Your task to perform on an android device: empty trash in google photos Image 0: 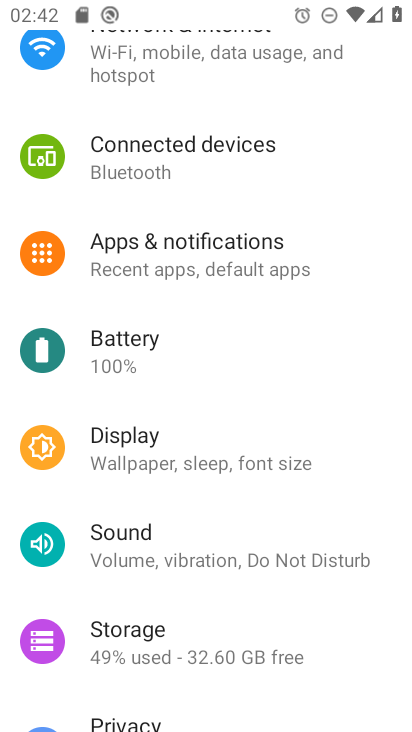
Step 0: press home button
Your task to perform on an android device: empty trash in google photos Image 1: 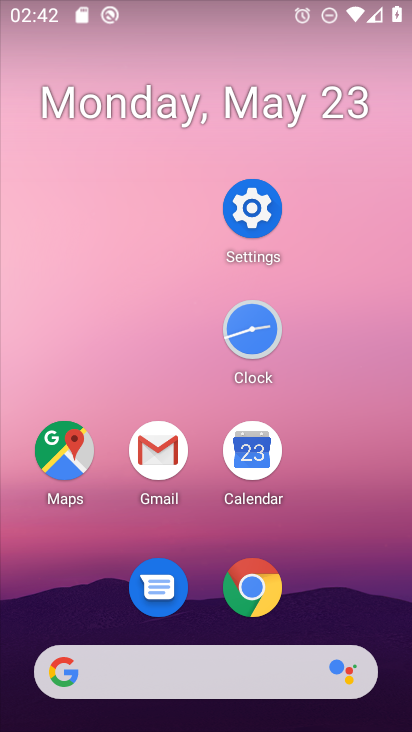
Step 1: drag from (370, 548) to (337, 158)
Your task to perform on an android device: empty trash in google photos Image 2: 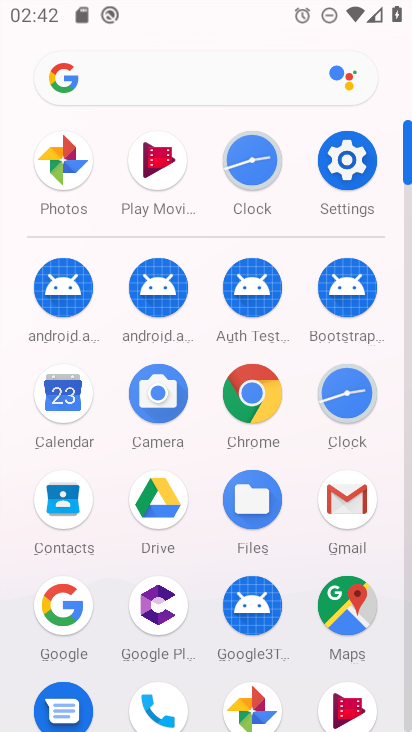
Step 2: click (59, 216)
Your task to perform on an android device: empty trash in google photos Image 3: 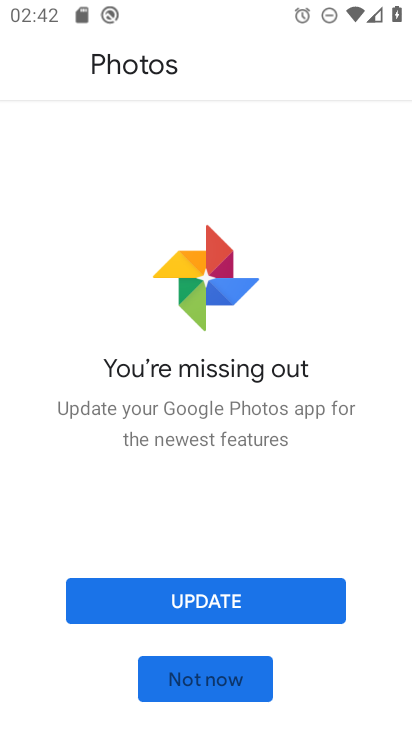
Step 3: click (270, 614)
Your task to perform on an android device: empty trash in google photos Image 4: 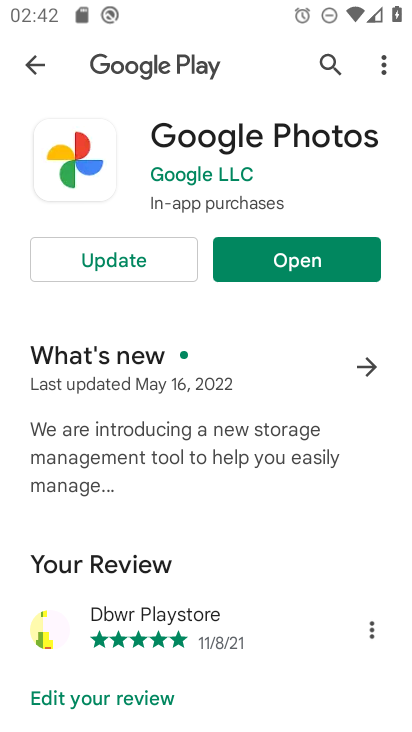
Step 4: click (118, 249)
Your task to perform on an android device: empty trash in google photos Image 5: 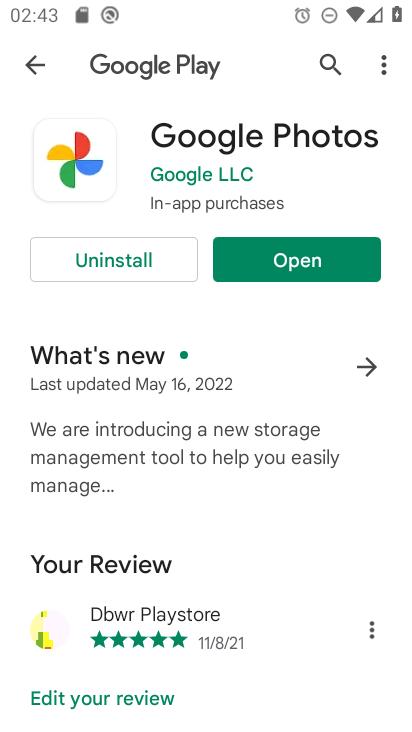
Step 5: click (292, 270)
Your task to perform on an android device: empty trash in google photos Image 6: 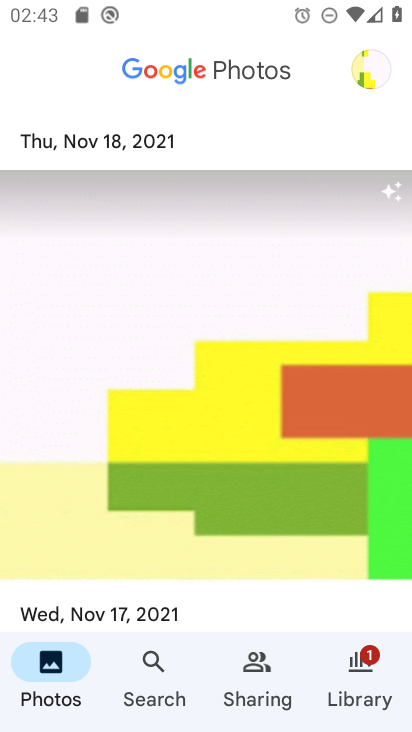
Step 6: click (368, 78)
Your task to perform on an android device: empty trash in google photos Image 7: 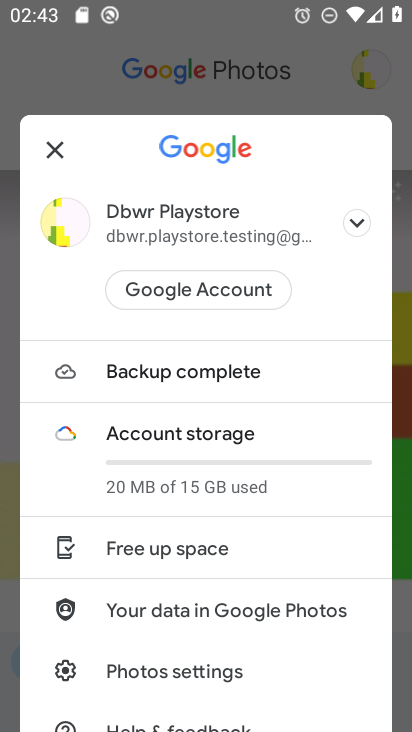
Step 7: click (41, 157)
Your task to perform on an android device: empty trash in google photos Image 8: 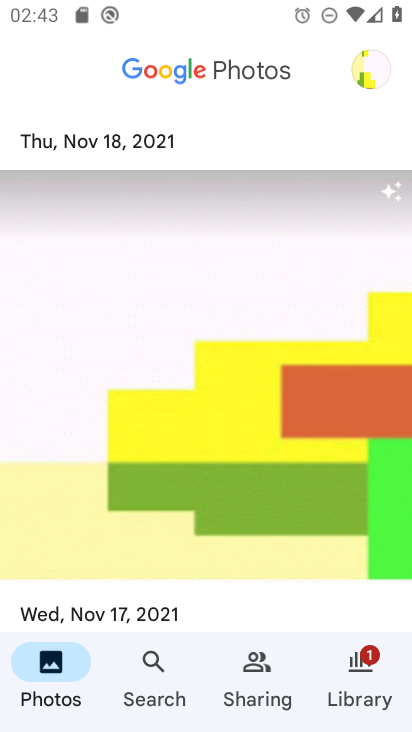
Step 8: click (356, 687)
Your task to perform on an android device: empty trash in google photos Image 9: 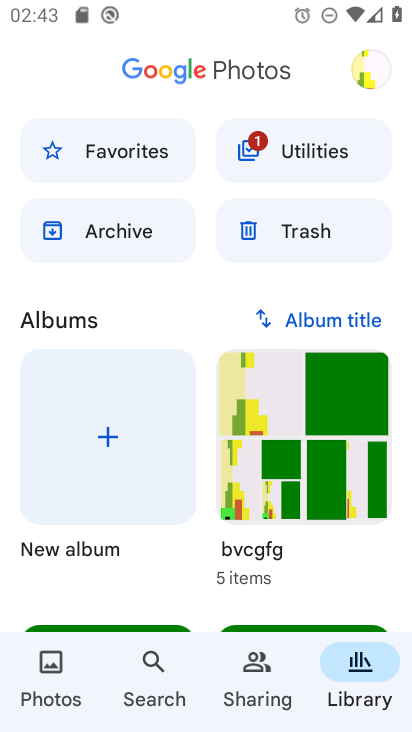
Step 9: click (321, 221)
Your task to perform on an android device: empty trash in google photos Image 10: 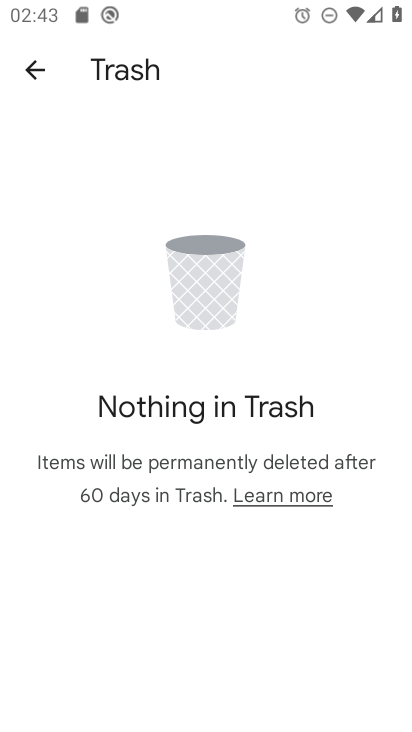
Step 10: task complete